Your task to perform on an android device: Show me popular videos on Youtube Image 0: 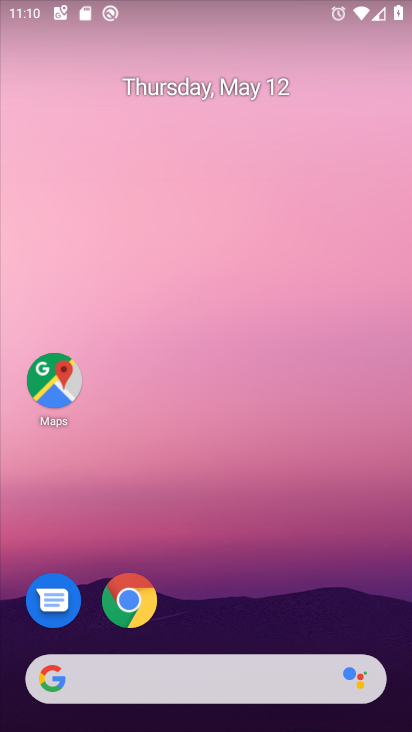
Step 0: drag from (200, 606) to (157, 150)
Your task to perform on an android device: Show me popular videos on Youtube Image 1: 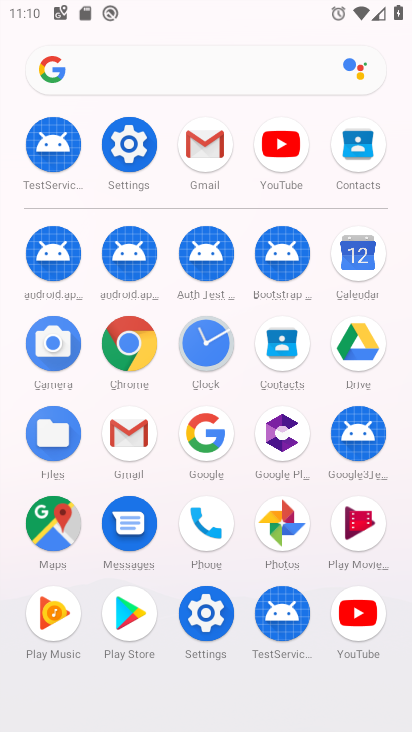
Step 1: click (278, 143)
Your task to perform on an android device: Show me popular videos on Youtube Image 2: 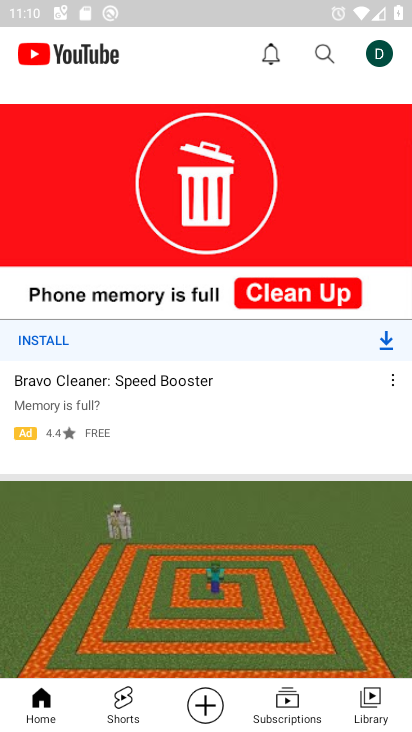
Step 2: drag from (145, 237) to (143, 469)
Your task to perform on an android device: Show me popular videos on Youtube Image 3: 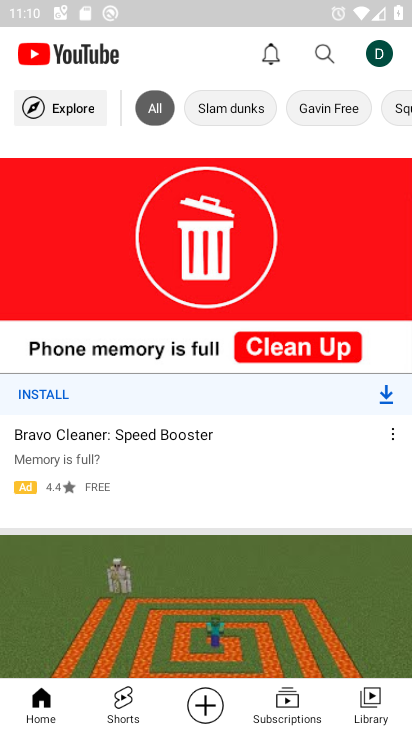
Step 3: click (82, 103)
Your task to perform on an android device: Show me popular videos on Youtube Image 4: 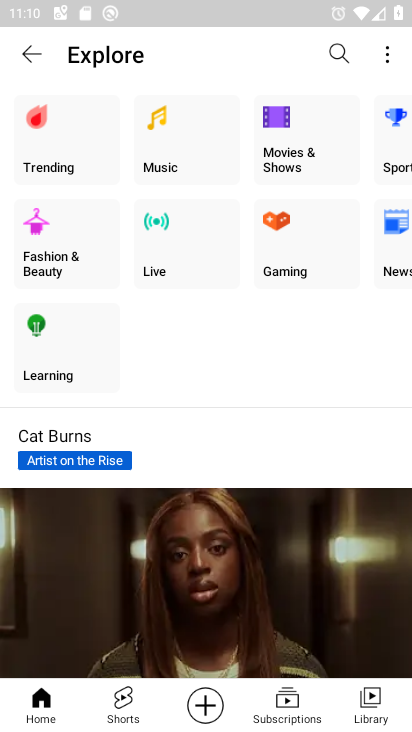
Step 4: click (57, 143)
Your task to perform on an android device: Show me popular videos on Youtube Image 5: 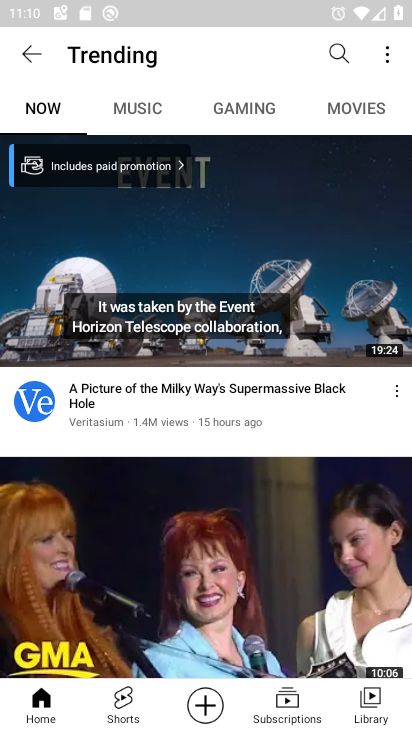
Step 5: task complete